Your task to perform on an android device: change the upload size in google photos Image 0: 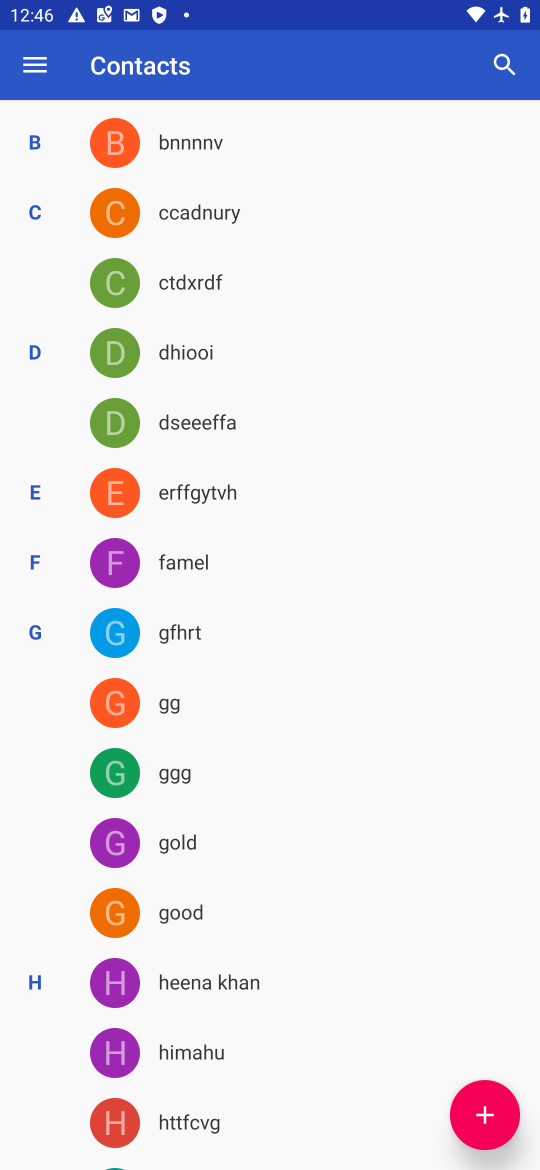
Step 0: press home button
Your task to perform on an android device: change the upload size in google photos Image 1: 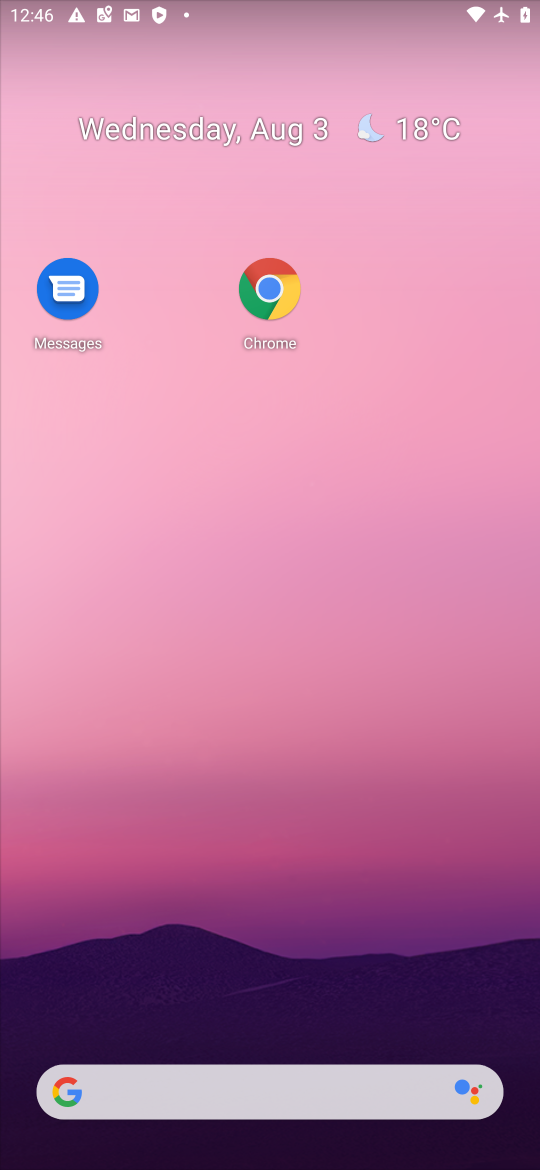
Step 1: drag from (332, 1046) to (239, 233)
Your task to perform on an android device: change the upload size in google photos Image 2: 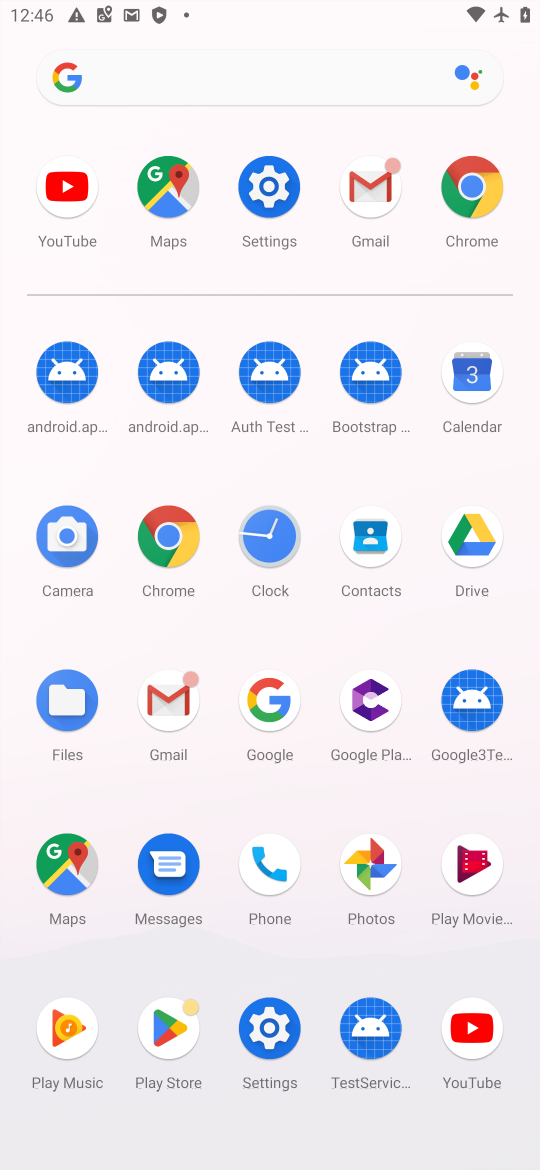
Step 2: click (391, 873)
Your task to perform on an android device: change the upload size in google photos Image 3: 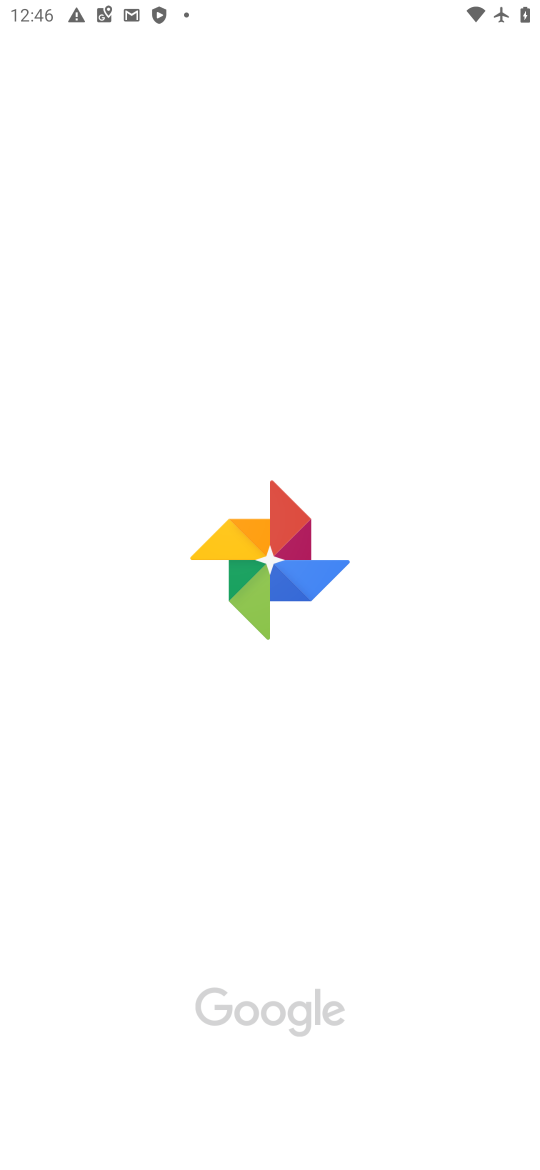
Step 3: task complete